Your task to perform on an android device: View the shopping cart on walmart.com. Add "macbook air" to the cart on walmart.com, then select checkout. Image 0: 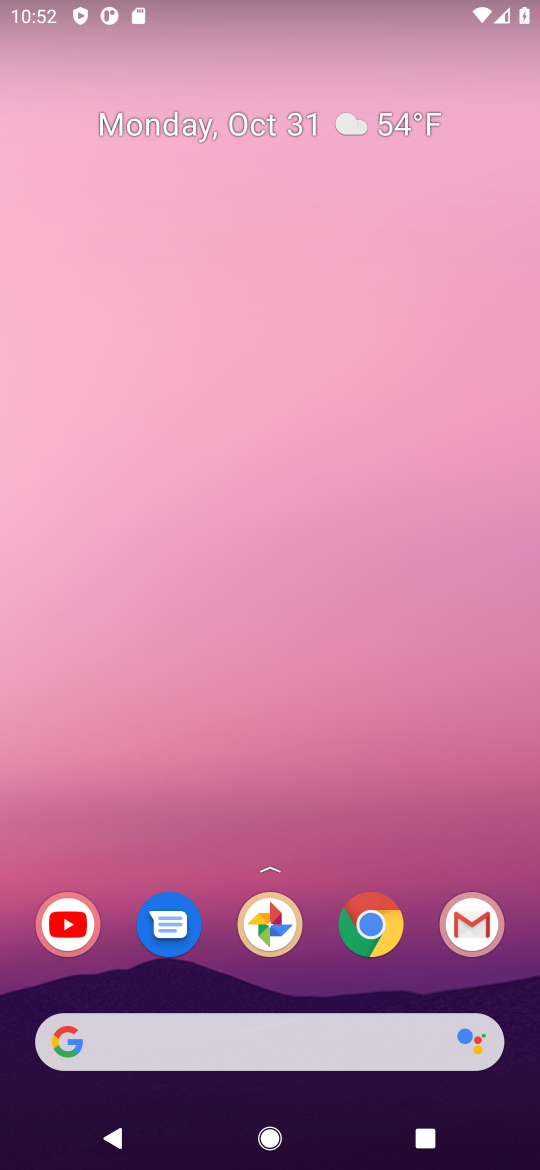
Step 0: press home button
Your task to perform on an android device: View the shopping cart on walmart.com. Add "macbook air" to the cart on walmart.com, then select checkout. Image 1: 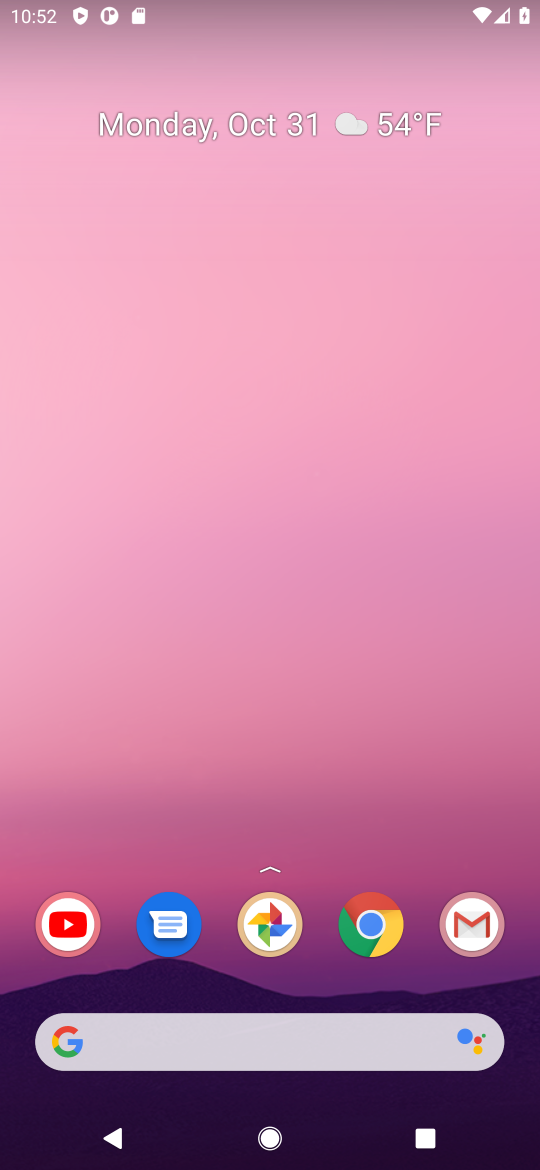
Step 1: click (385, 931)
Your task to perform on an android device: View the shopping cart on walmart.com. Add "macbook air" to the cart on walmart.com, then select checkout. Image 2: 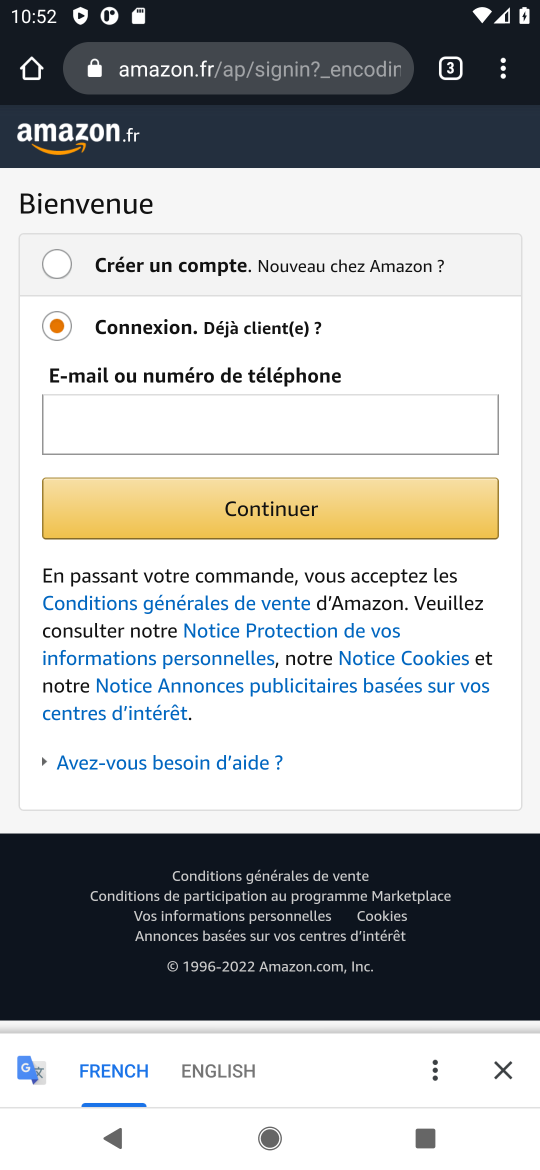
Step 2: click (288, 74)
Your task to perform on an android device: View the shopping cart on walmart.com. Add "macbook air" to the cart on walmart.com, then select checkout. Image 3: 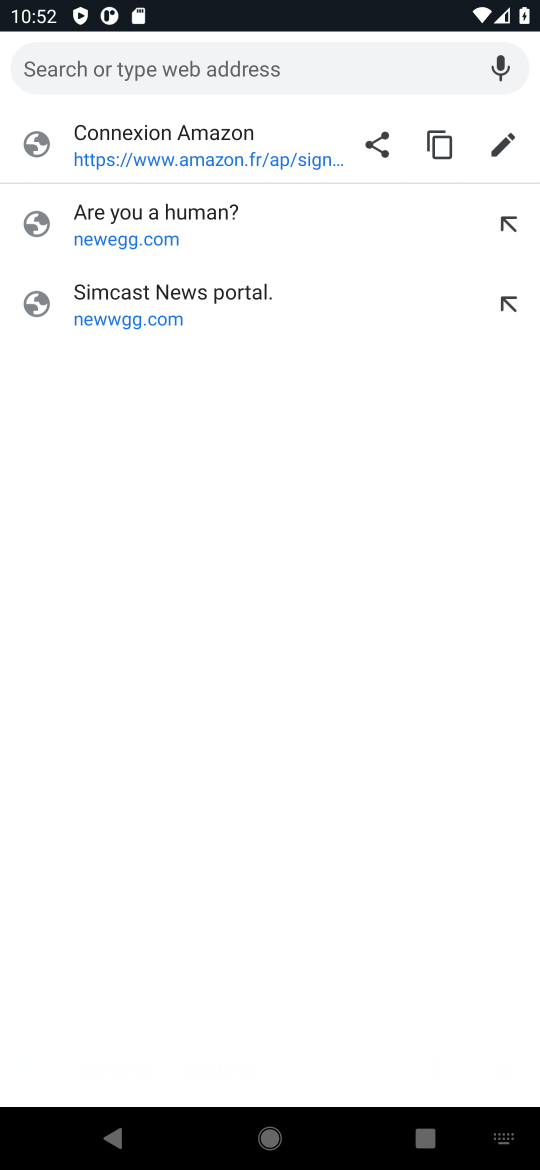
Step 3: type "walmart.com"
Your task to perform on an android device: View the shopping cart on walmart.com. Add "macbook air" to the cart on walmart.com, then select checkout. Image 4: 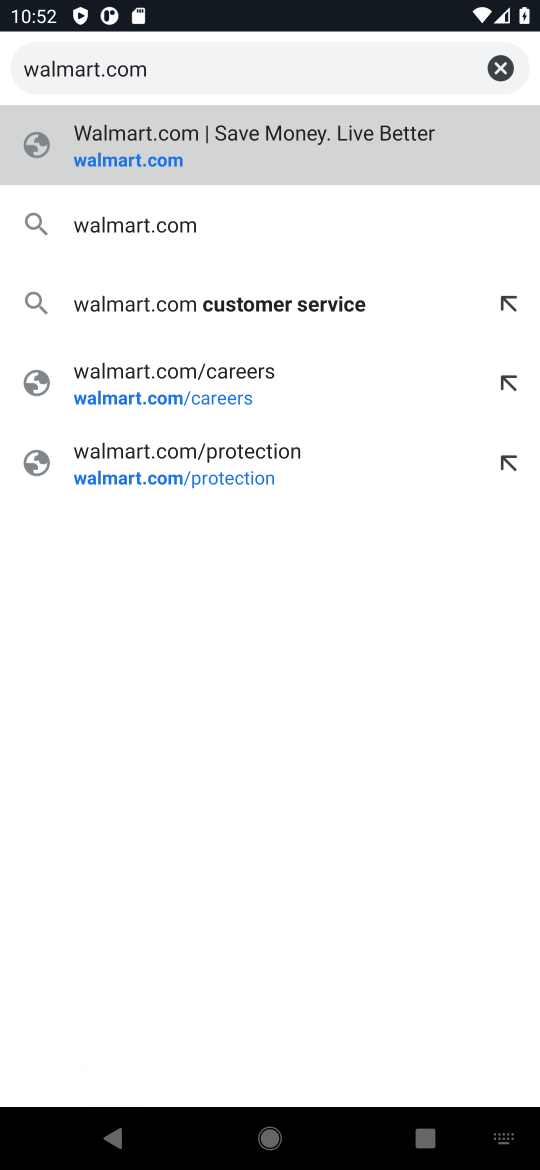
Step 4: type ""
Your task to perform on an android device: View the shopping cart on walmart.com. Add "macbook air" to the cart on walmart.com, then select checkout. Image 5: 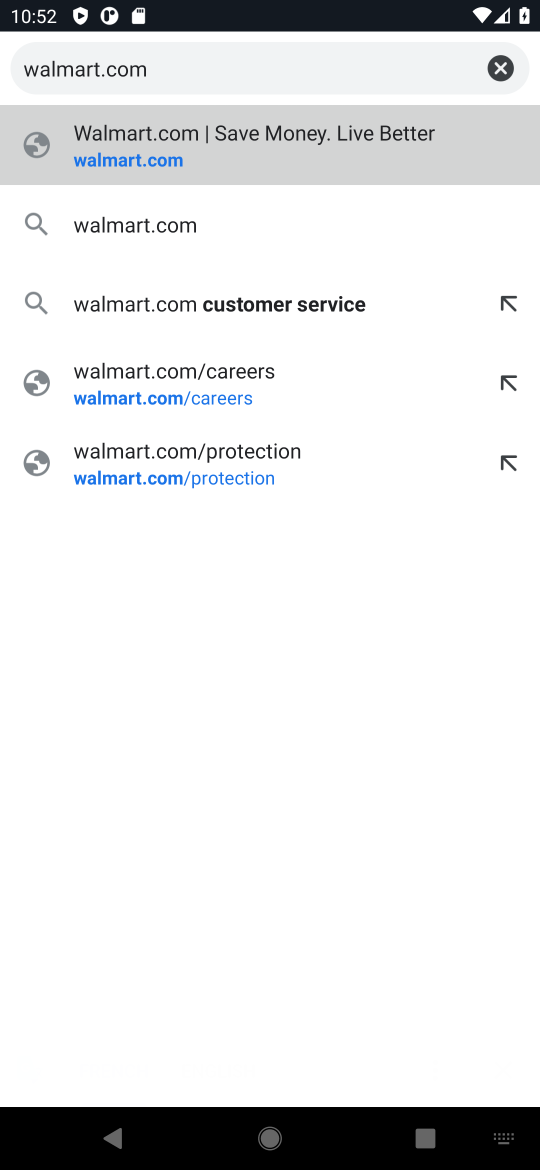
Step 5: click (167, 174)
Your task to perform on an android device: View the shopping cart on walmart.com. Add "macbook air" to the cart on walmart.com, then select checkout. Image 6: 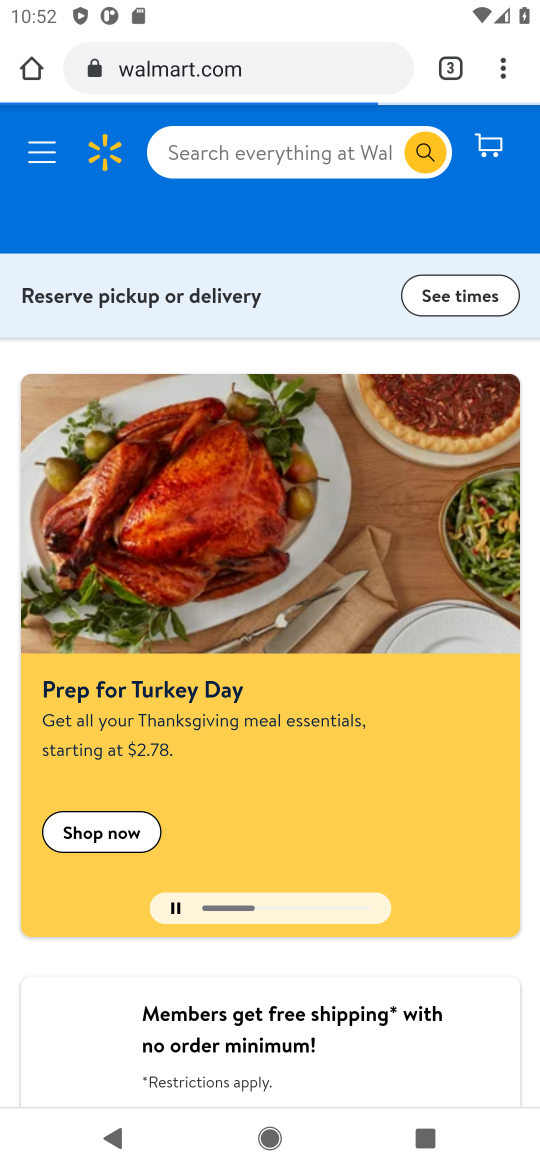
Step 6: click (310, 161)
Your task to perform on an android device: View the shopping cart on walmart.com. Add "macbook air" to the cart on walmart.com, then select checkout. Image 7: 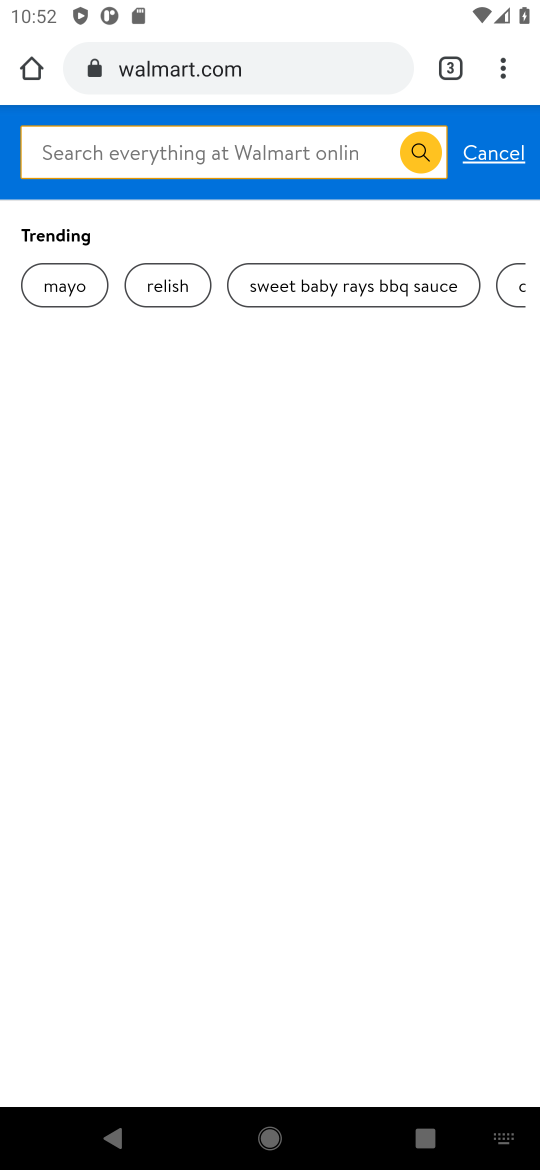
Step 7: type "macbook air"
Your task to perform on an android device: View the shopping cart on walmart.com. Add "macbook air" to the cart on walmart.com, then select checkout. Image 8: 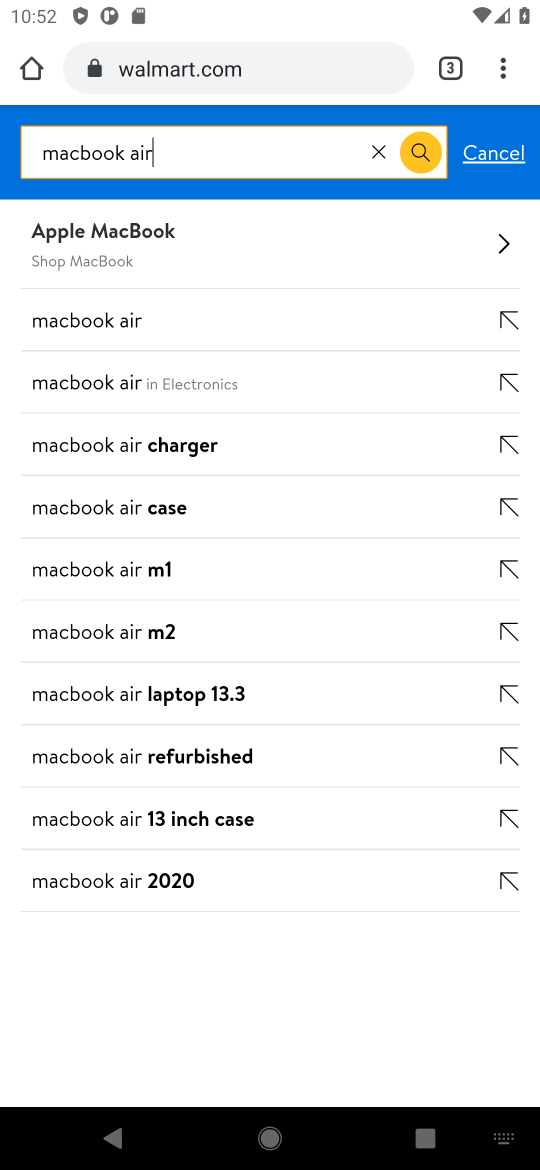
Step 8: type ""
Your task to perform on an android device: View the shopping cart on walmart.com. Add "macbook air" to the cart on walmart.com, then select checkout. Image 9: 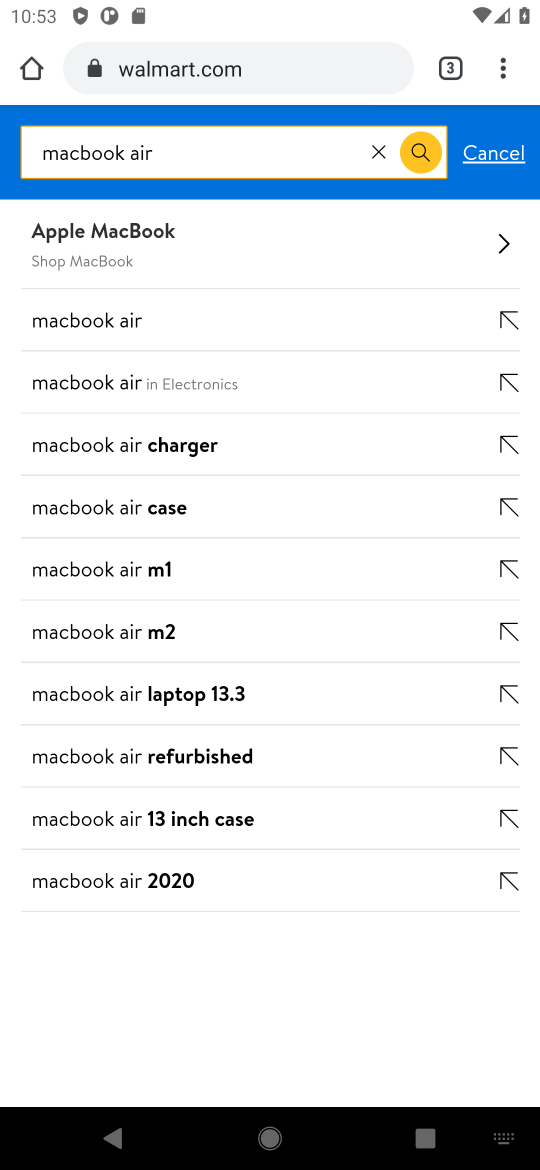
Step 9: click (224, 334)
Your task to perform on an android device: View the shopping cart on walmart.com. Add "macbook air" to the cart on walmart.com, then select checkout. Image 10: 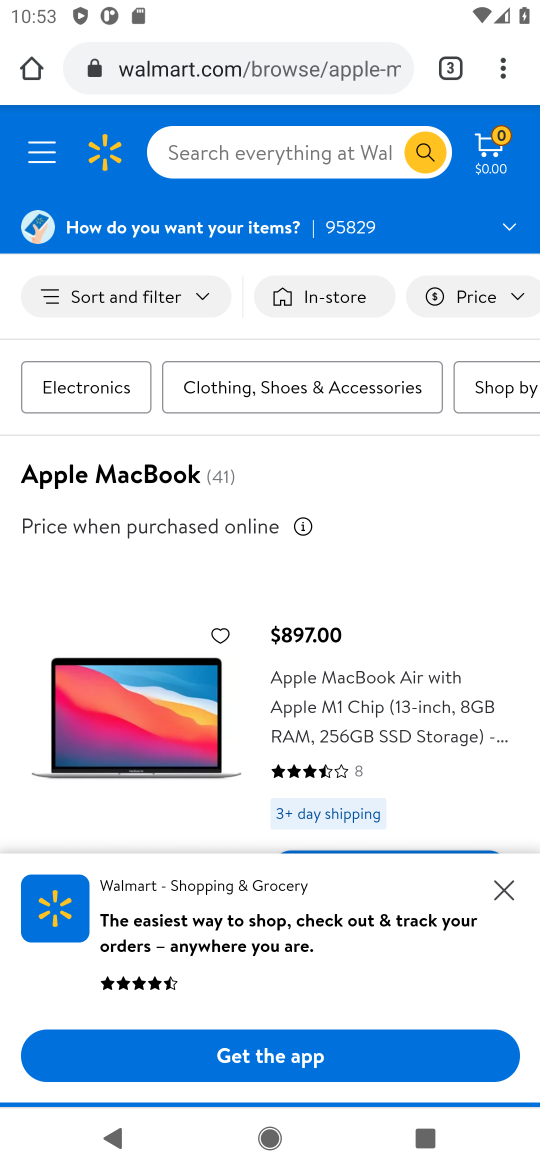
Step 10: click (498, 893)
Your task to perform on an android device: View the shopping cart on walmart.com. Add "macbook air" to the cart on walmart.com, then select checkout. Image 11: 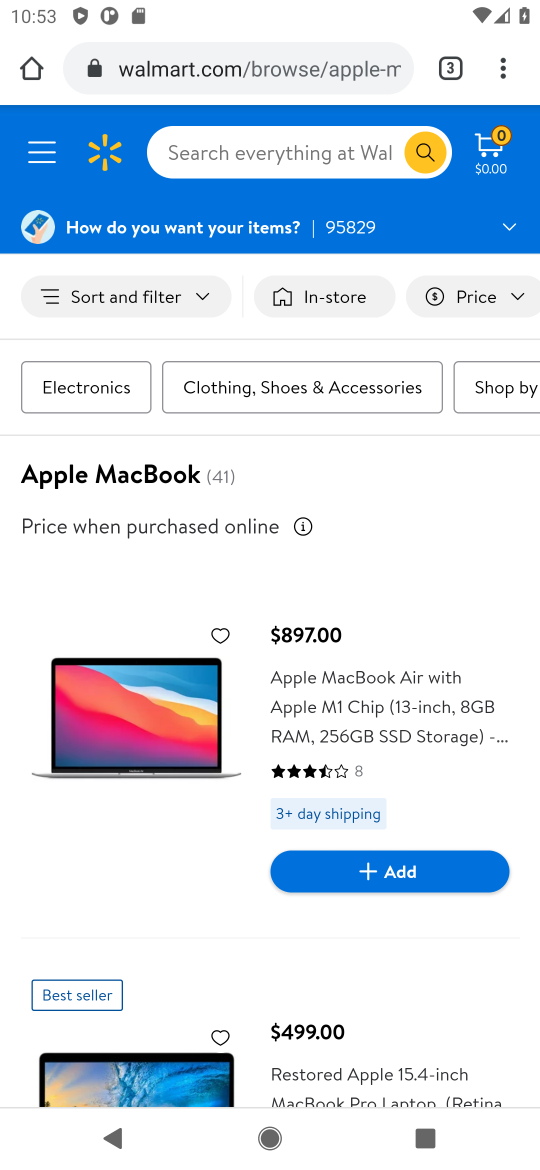
Step 11: click (161, 708)
Your task to perform on an android device: View the shopping cart on walmart.com. Add "macbook air" to the cart on walmart.com, then select checkout. Image 12: 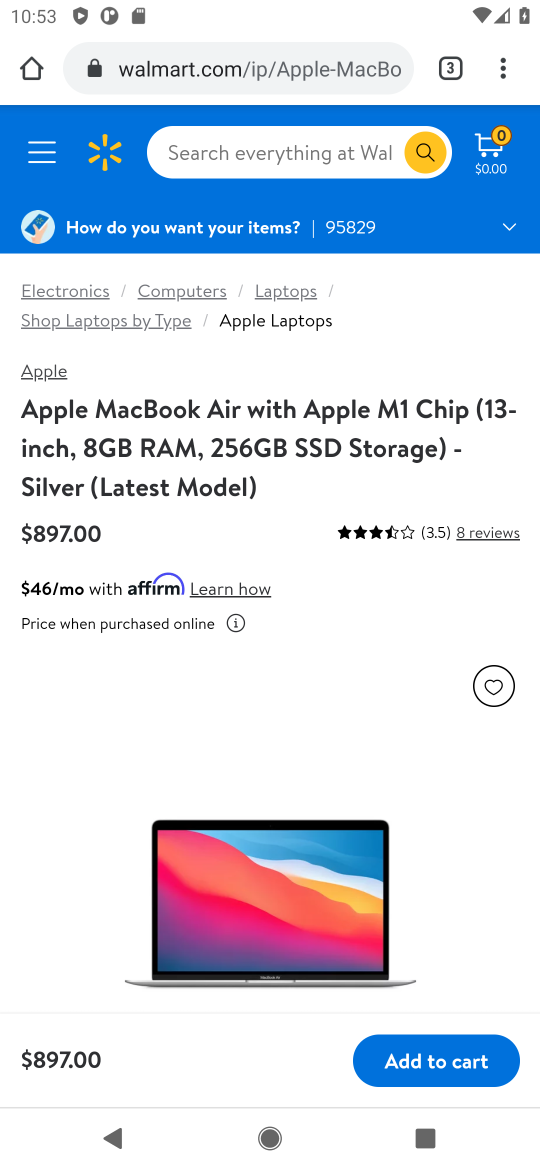
Step 12: drag from (342, 745) to (393, 374)
Your task to perform on an android device: View the shopping cart on walmart.com. Add "macbook air" to the cart on walmart.com, then select checkout. Image 13: 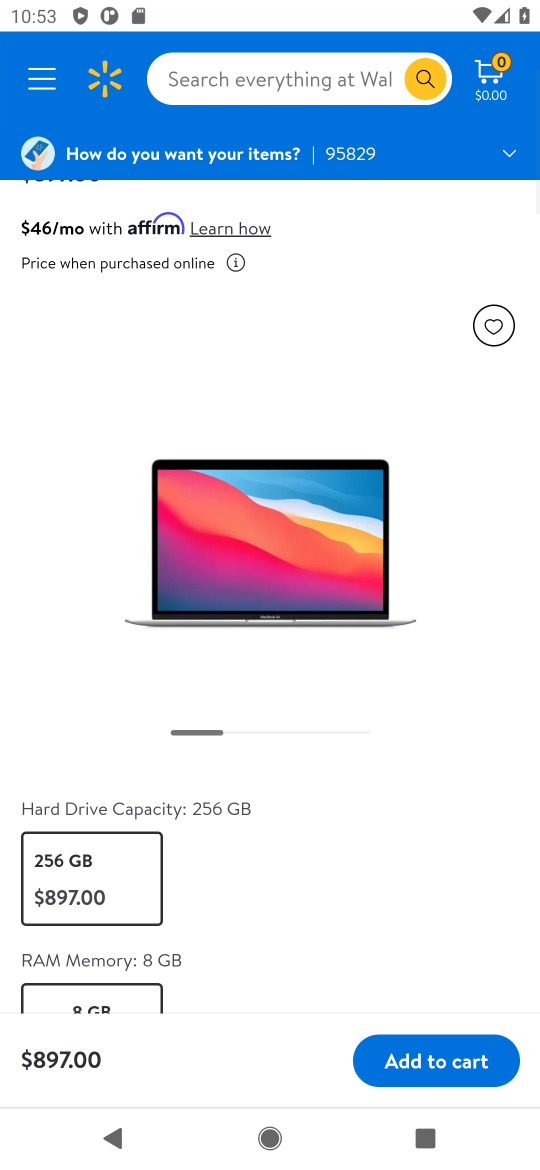
Step 13: drag from (249, 804) to (355, 370)
Your task to perform on an android device: View the shopping cart on walmart.com. Add "macbook air" to the cart on walmart.com, then select checkout. Image 14: 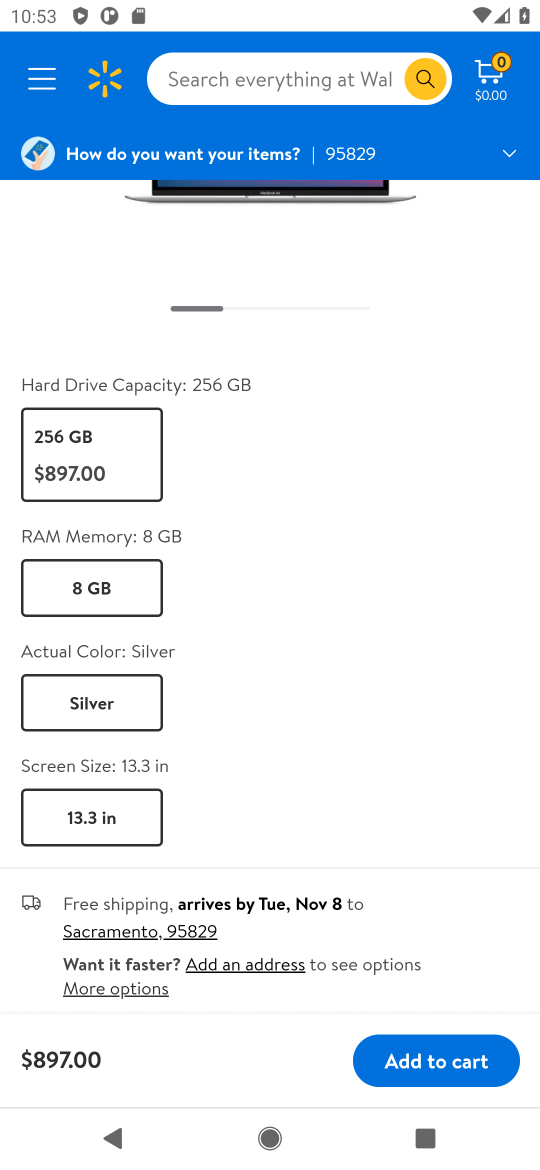
Step 14: click (411, 1059)
Your task to perform on an android device: View the shopping cart on walmart.com. Add "macbook air" to the cart on walmart.com, then select checkout. Image 15: 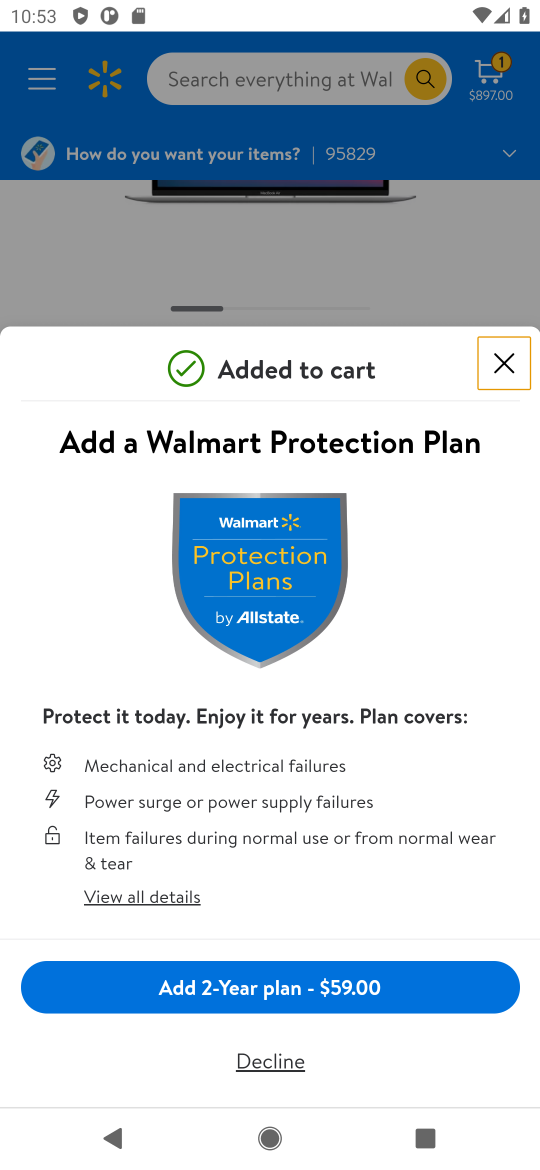
Step 15: click (498, 376)
Your task to perform on an android device: View the shopping cart on walmart.com. Add "macbook air" to the cart on walmart.com, then select checkout. Image 16: 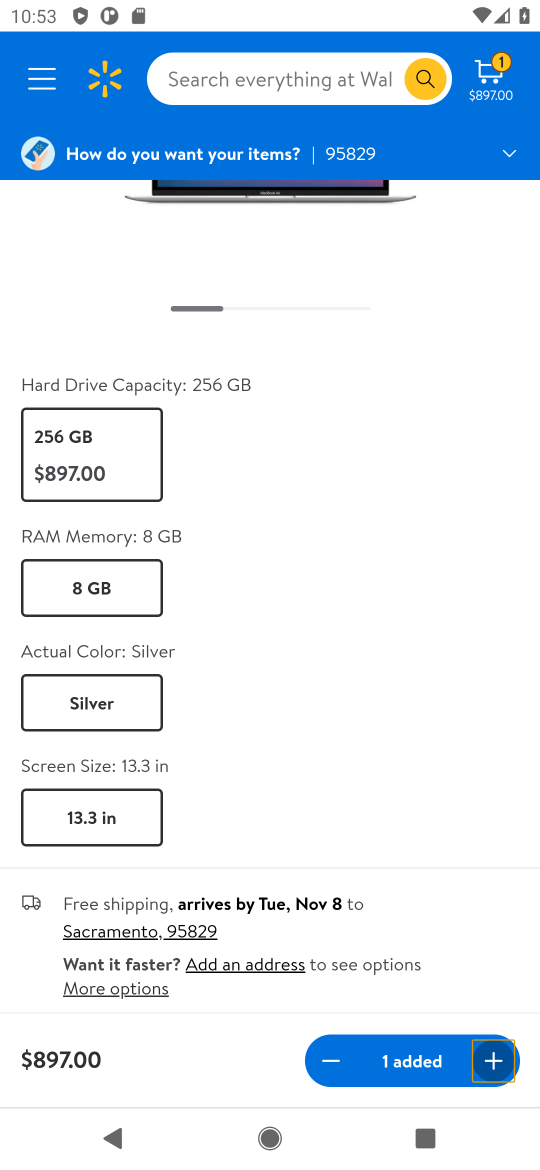
Step 16: click (502, 85)
Your task to perform on an android device: View the shopping cart on walmart.com. Add "macbook air" to the cart on walmart.com, then select checkout. Image 17: 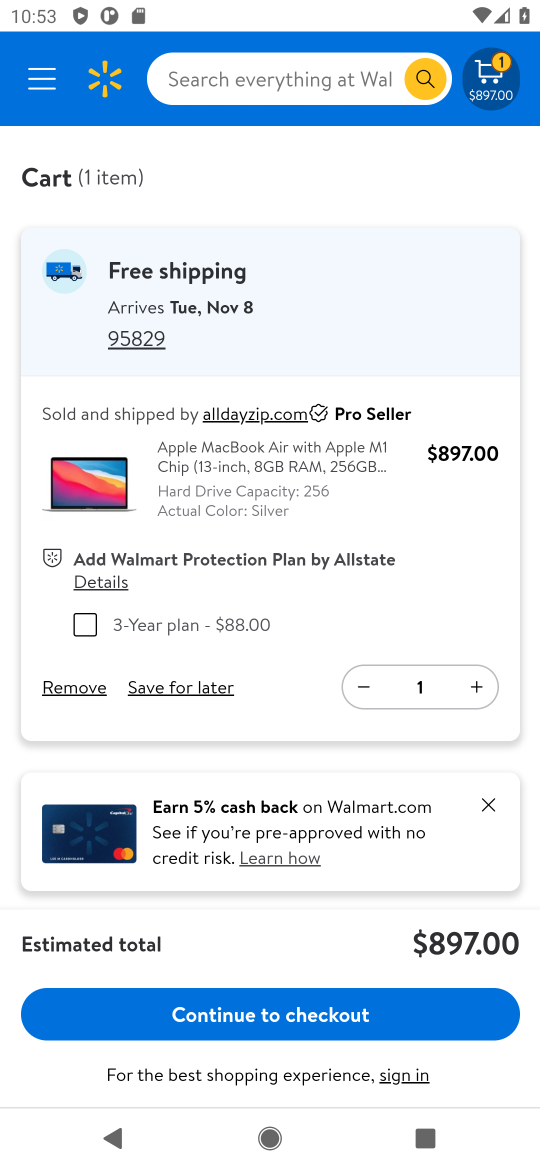
Step 17: click (301, 1031)
Your task to perform on an android device: View the shopping cart on walmart.com. Add "macbook air" to the cart on walmart.com, then select checkout. Image 18: 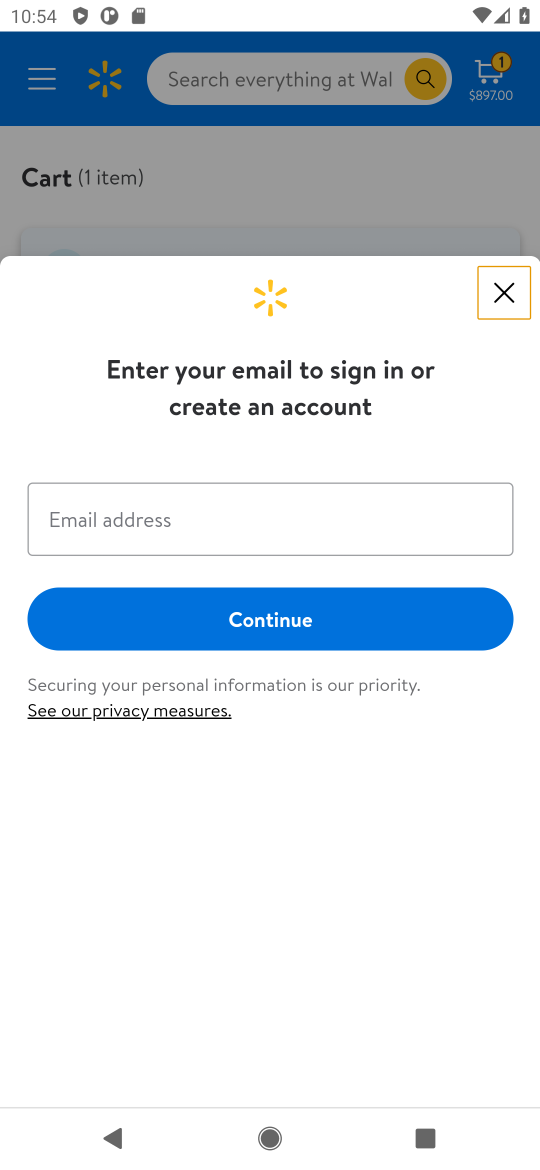
Step 18: task complete